Your task to perform on an android device: turn on sleep mode Image 0: 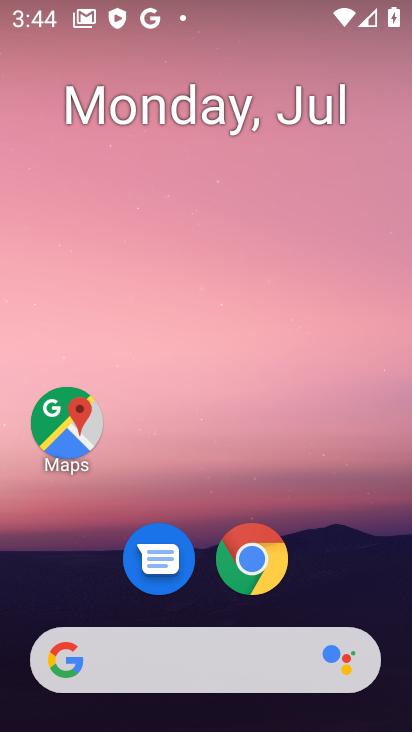
Step 0: drag from (81, 537) to (160, 103)
Your task to perform on an android device: turn on sleep mode Image 1: 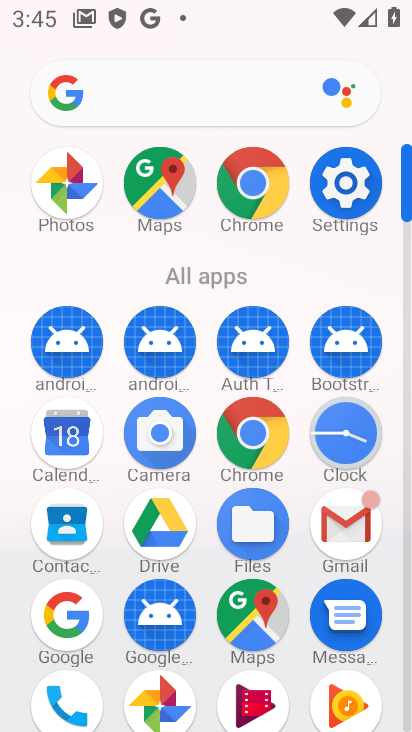
Step 1: click (348, 157)
Your task to perform on an android device: turn on sleep mode Image 2: 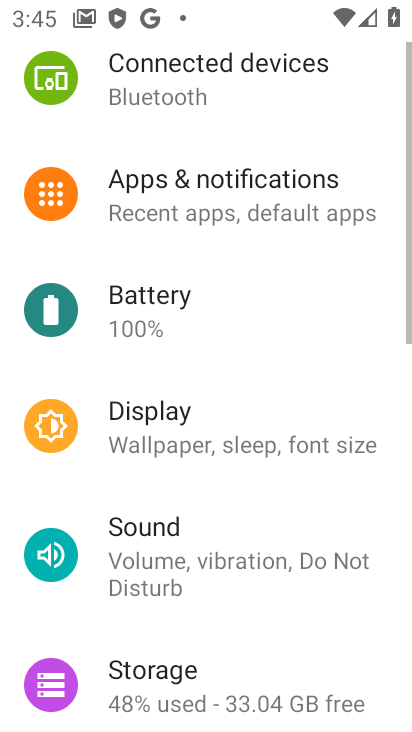
Step 2: drag from (181, 256) to (209, 719)
Your task to perform on an android device: turn on sleep mode Image 3: 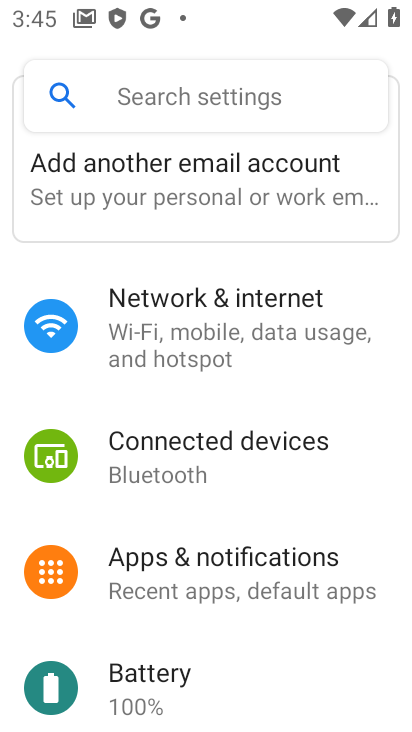
Step 3: click (141, 95)
Your task to perform on an android device: turn on sleep mode Image 4: 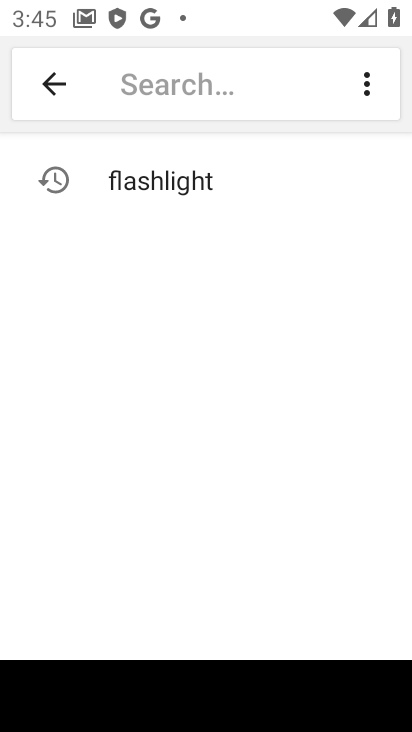
Step 4: type "sleep mode"
Your task to perform on an android device: turn on sleep mode Image 5: 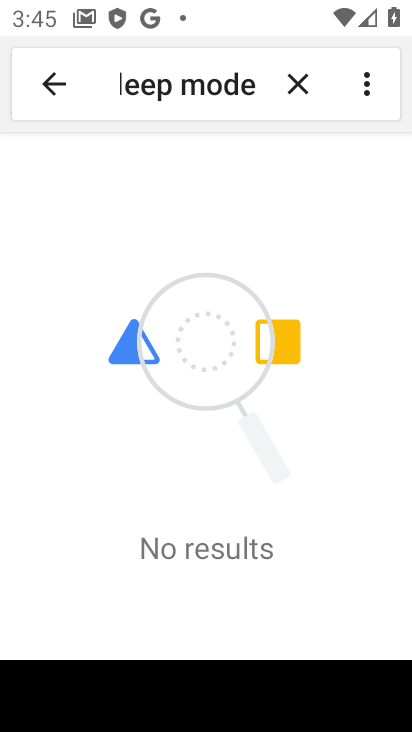
Step 5: task complete